Your task to perform on an android device: Go to notification settings Image 0: 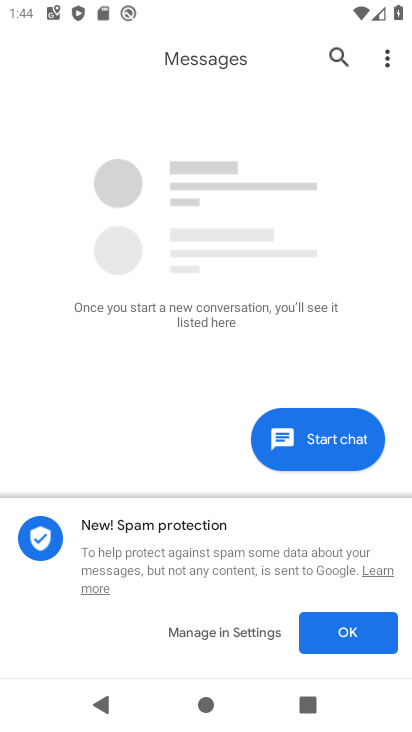
Step 0: press back button
Your task to perform on an android device: Go to notification settings Image 1: 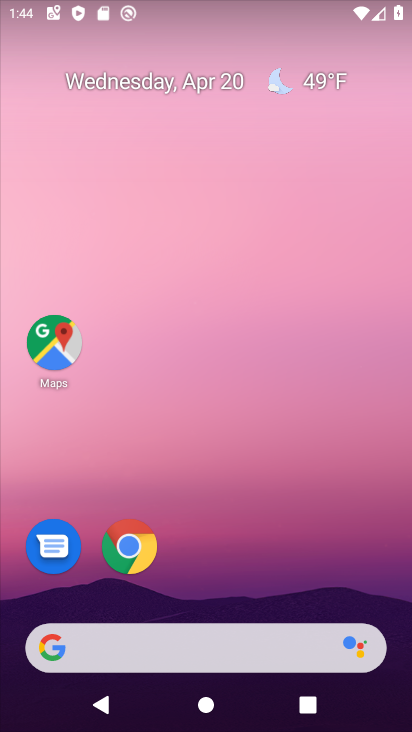
Step 1: drag from (214, 518) to (290, 26)
Your task to perform on an android device: Go to notification settings Image 2: 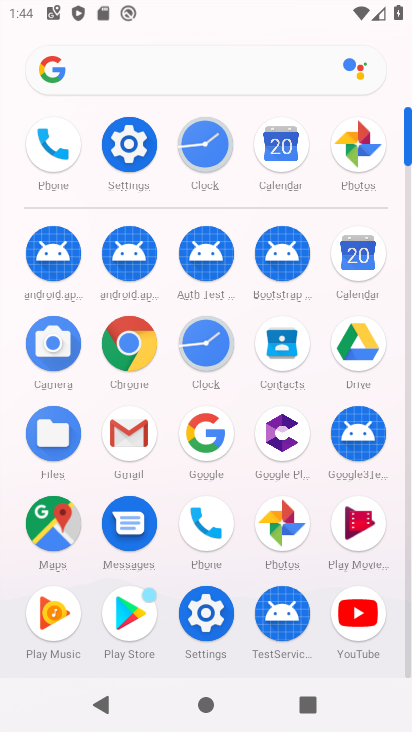
Step 2: click (128, 140)
Your task to perform on an android device: Go to notification settings Image 3: 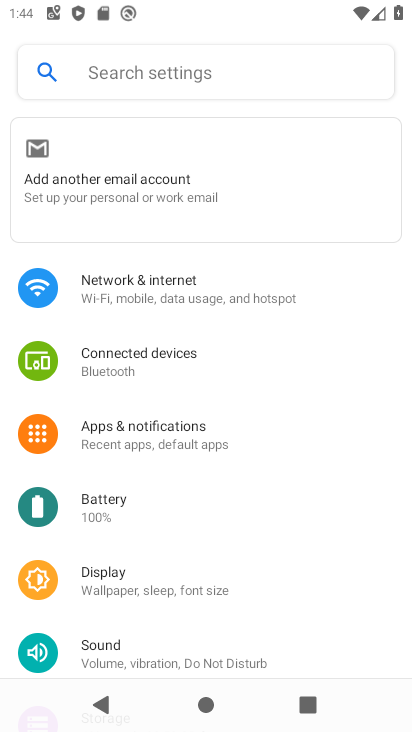
Step 3: click (168, 425)
Your task to perform on an android device: Go to notification settings Image 4: 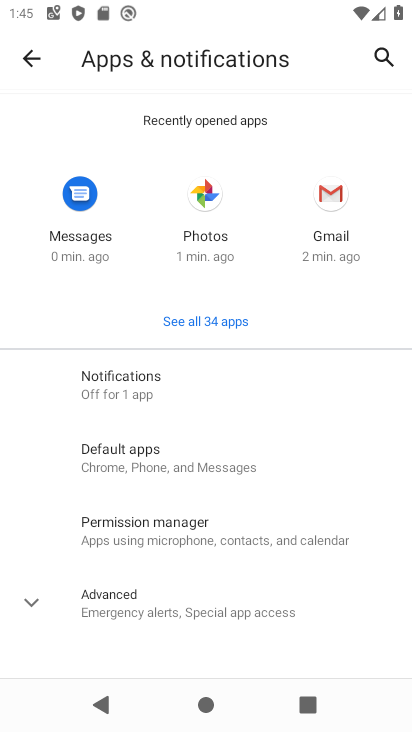
Step 4: click (198, 387)
Your task to perform on an android device: Go to notification settings Image 5: 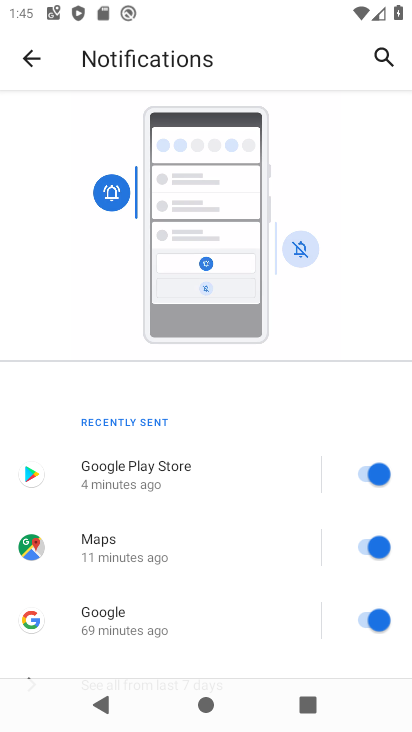
Step 5: task complete